Your task to perform on an android device: Open Google Image 0: 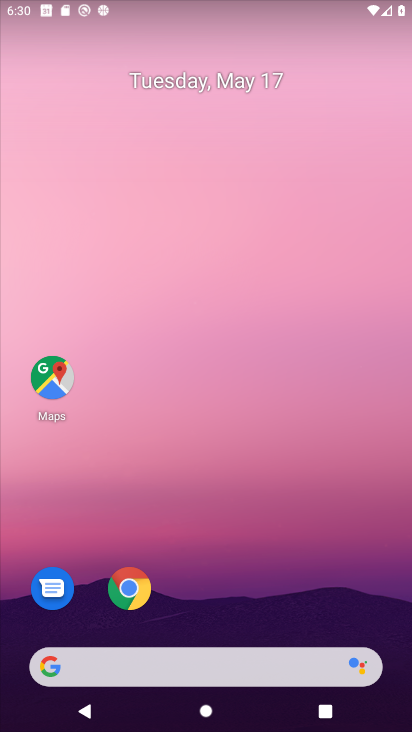
Step 0: drag from (381, 643) to (264, 85)
Your task to perform on an android device: Open Google Image 1: 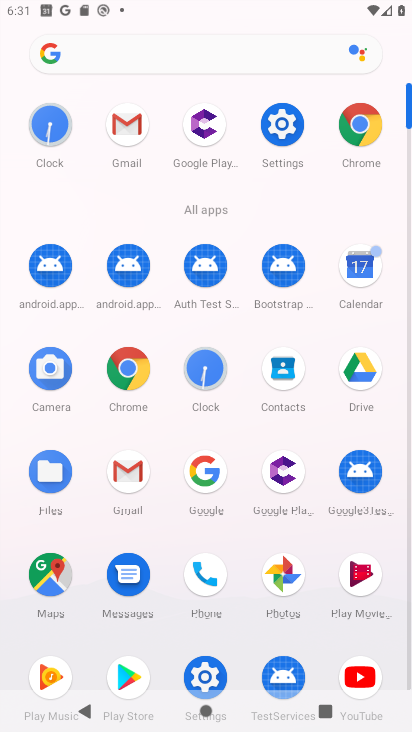
Step 1: click (217, 483)
Your task to perform on an android device: Open Google Image 2: 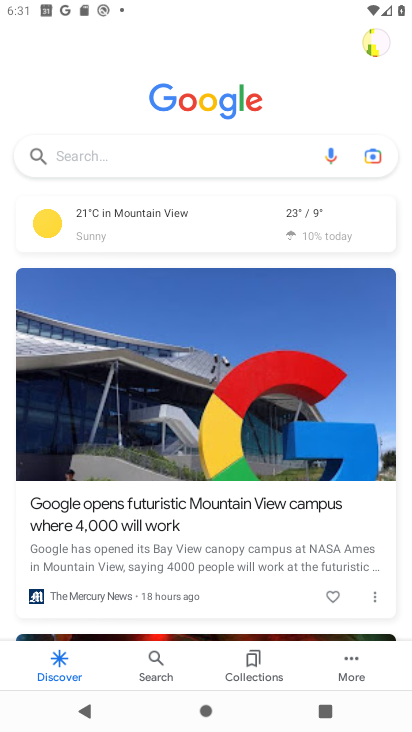
Step 2: task complete